Your task to perform on an android device: Open my contact list Image 0: 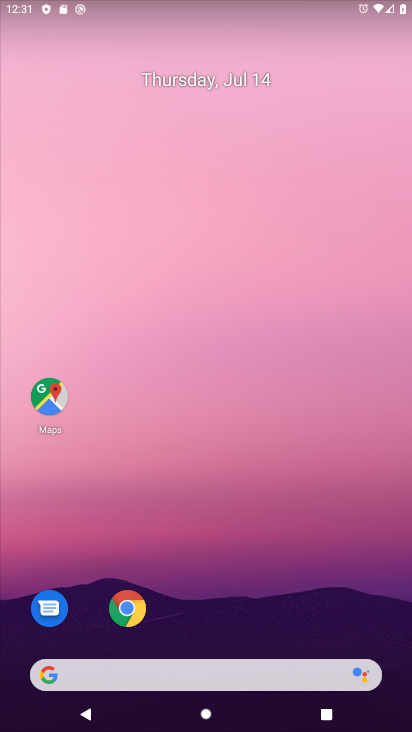
Step 0: drag from (184, 671) to (289, 169)
Your task to perform on an android device: Open my contact list Image 1: 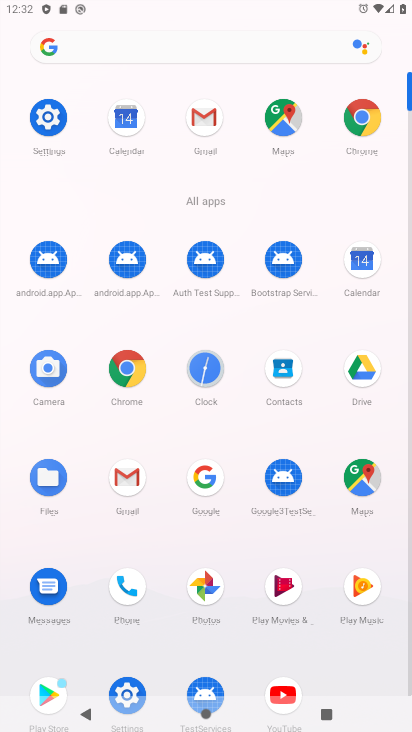
Step 1: click (284, 372)
Your task to perform on an android device: Open my contact list Image 2: 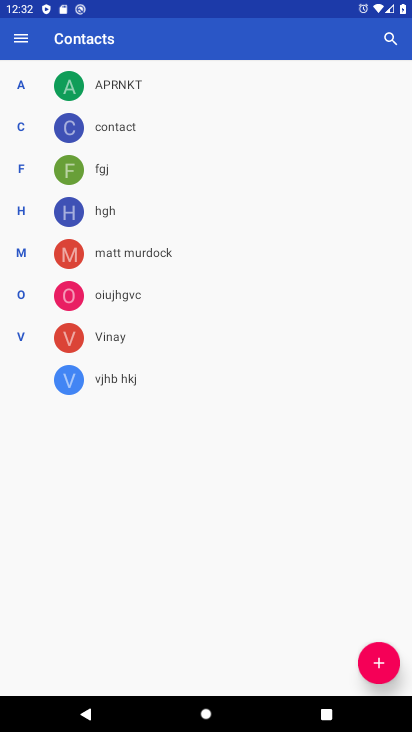
Step 2: task complete